Your task to perform on an android device: turn off wifi Image 0: 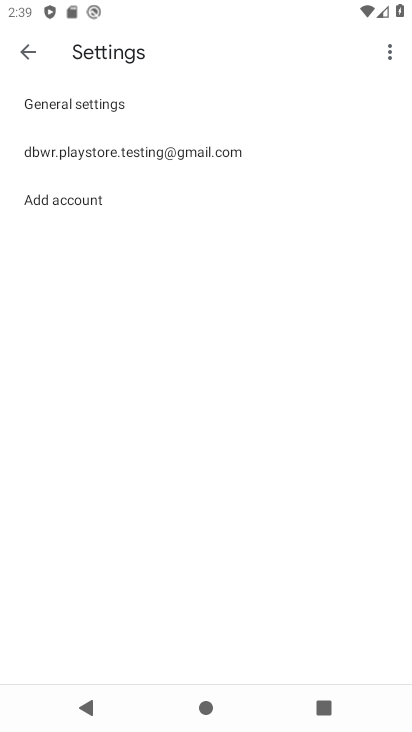
Step 0: press home button
Your task to perform on an android device: turn off wifi Image 1: 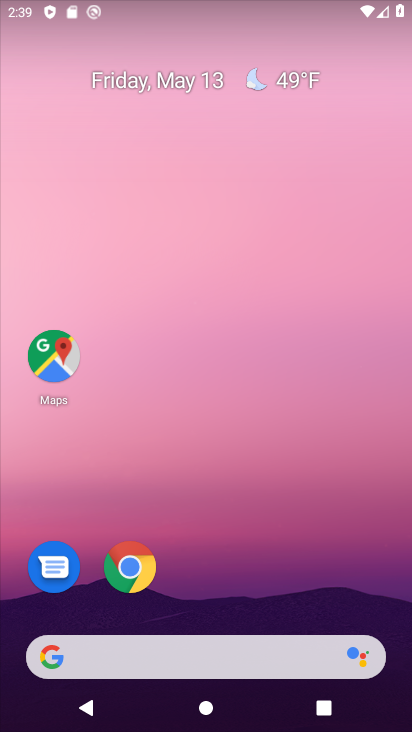
Step 1: drag from (202, 628) to (172, 44)
Your task to perform on an android device: turn off wifi Image 2: 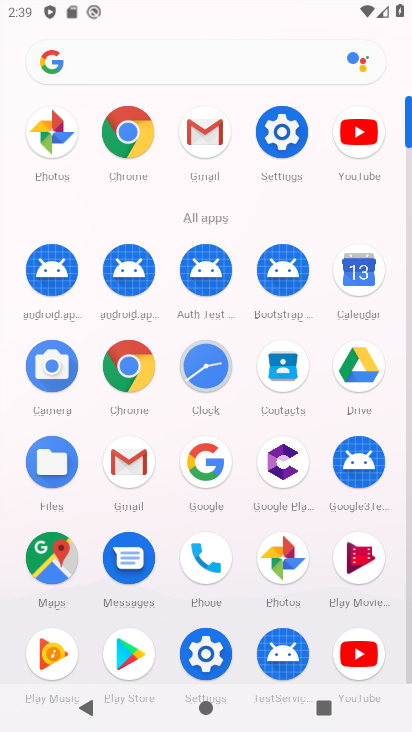
Step 2: click (284, 125)
Your task to perform on an android device: turn off wifi Image 3: 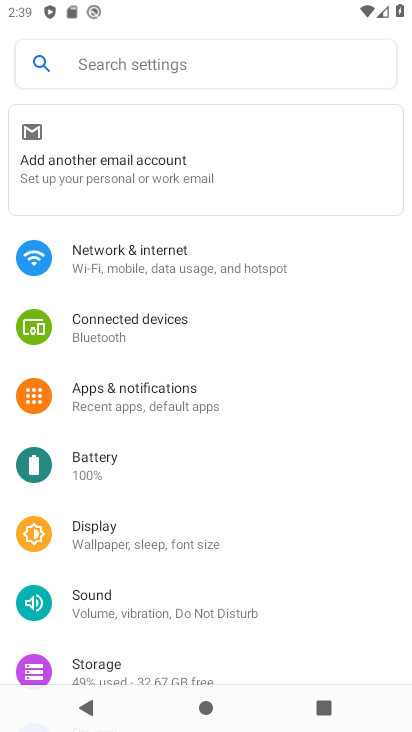
Step 3: click (135, 251)
Your task to perform on an android device: turn off wifi Image 4: 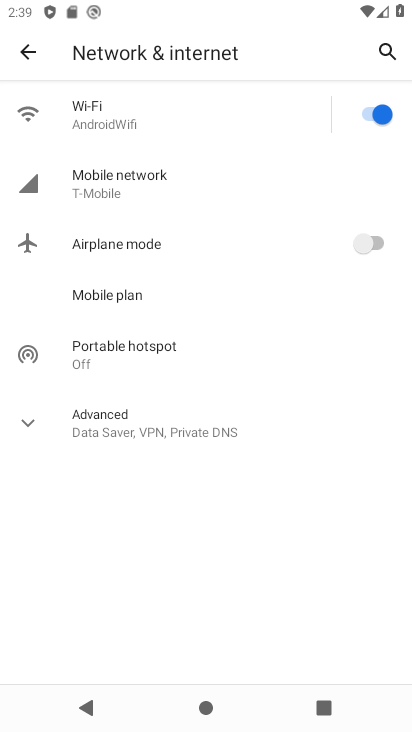
Step 4: click (380, 105)
Your task to perform on an android device: turn off wifi Image 5: 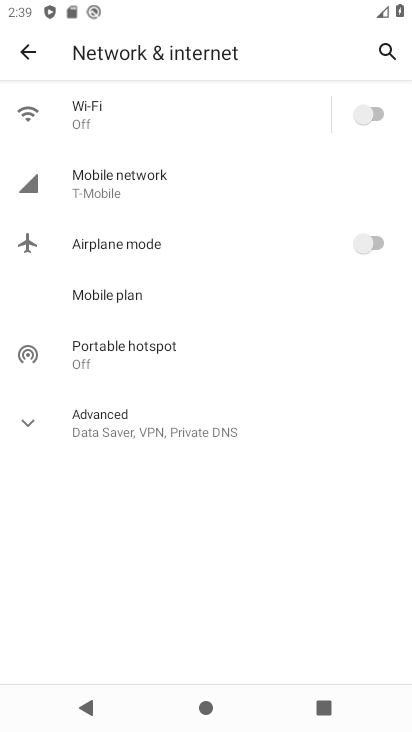
Step 5: task complete